Your task to perform on an android device: Open sound settings Image 0: 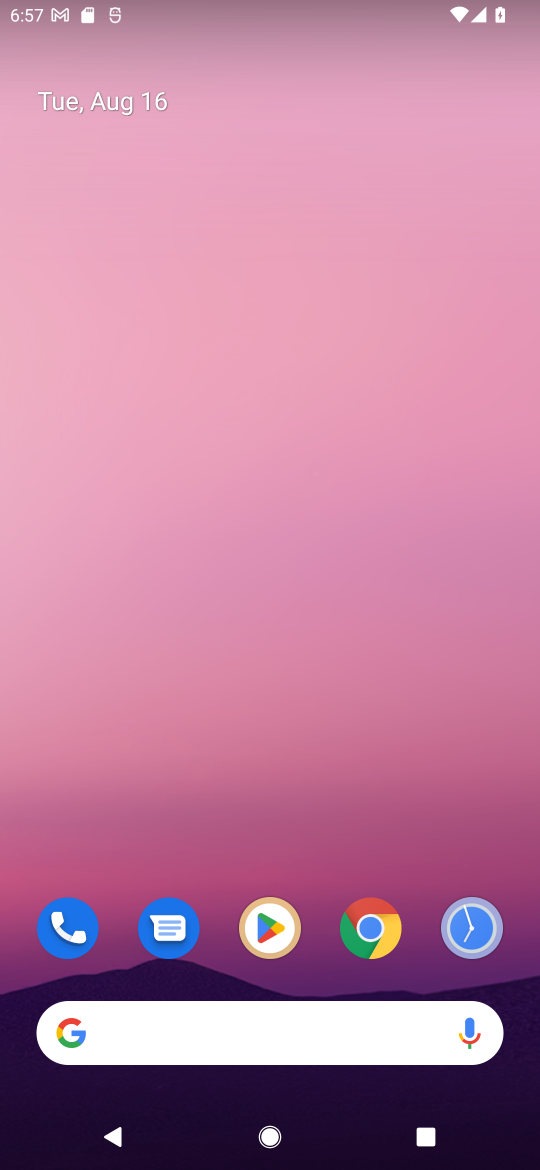
Step 0: drag from (322, 1024) to (322, 213)
Your task to perform on an android device: Open sound settings Image 1: 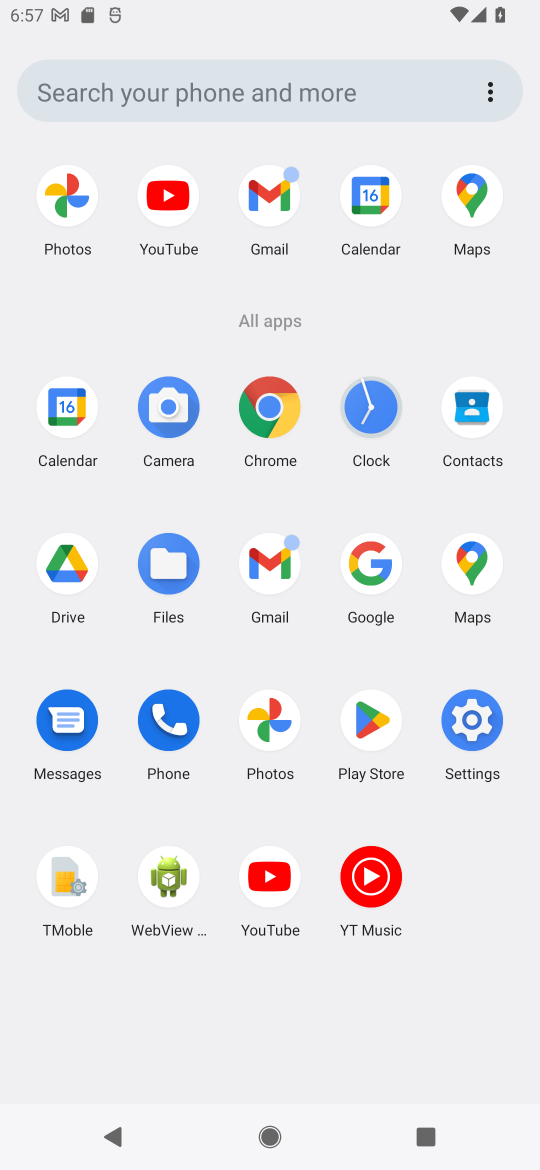
Step 1: click (468, 718)
Your task to perform on an android device: Open sound settings Image 2: 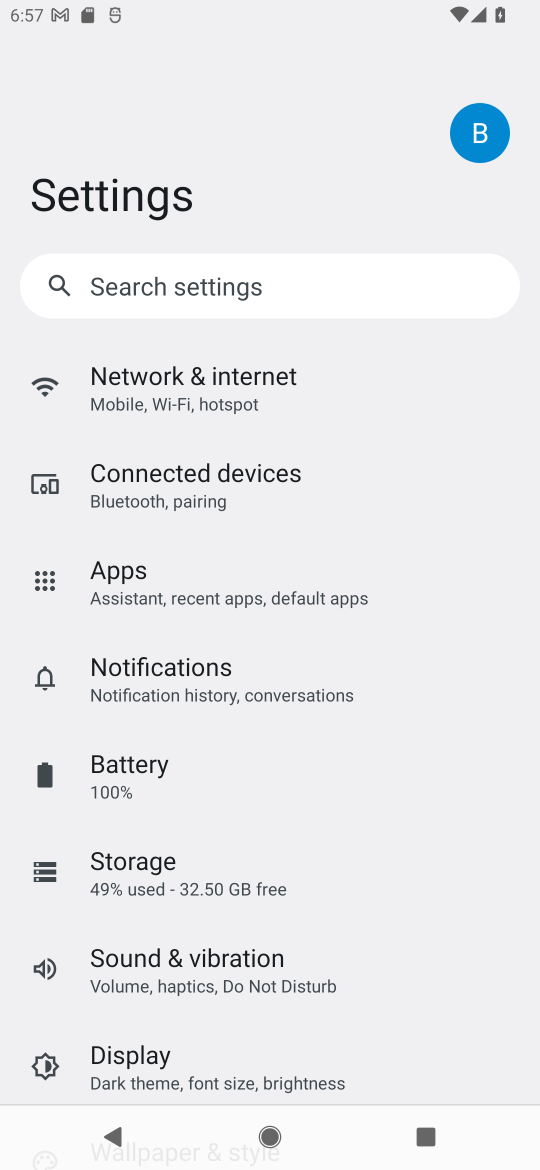
Step 2: drag from (257, 942) to (255, 356)
Your task to perform on an android device: Open sound settings Image 3: 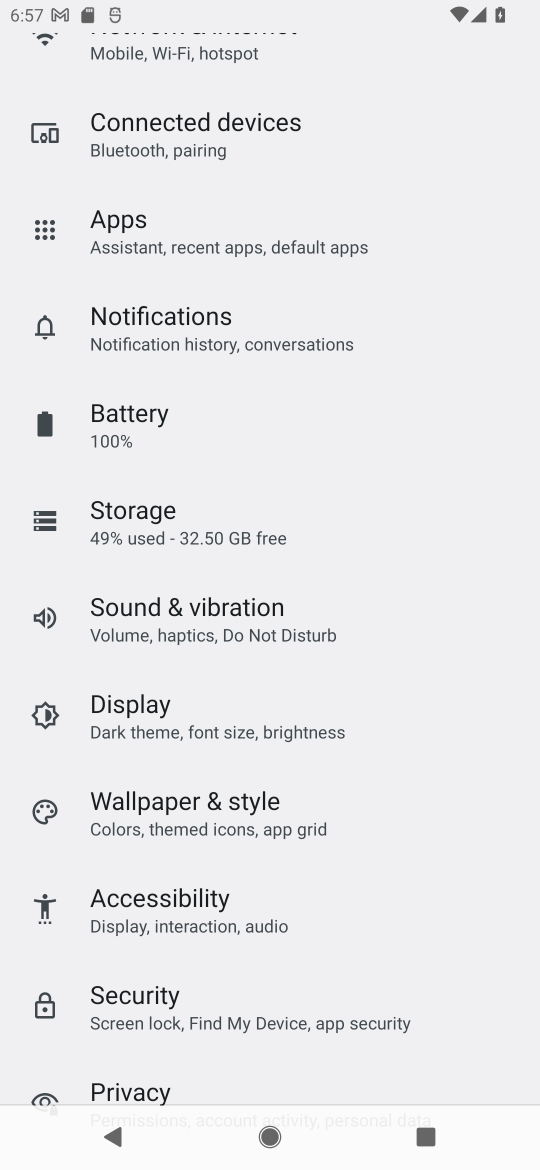
Step 3: drag from (222, 737) to (205, 149)
Your task to perform on an android device: Open sound settings Image 4: 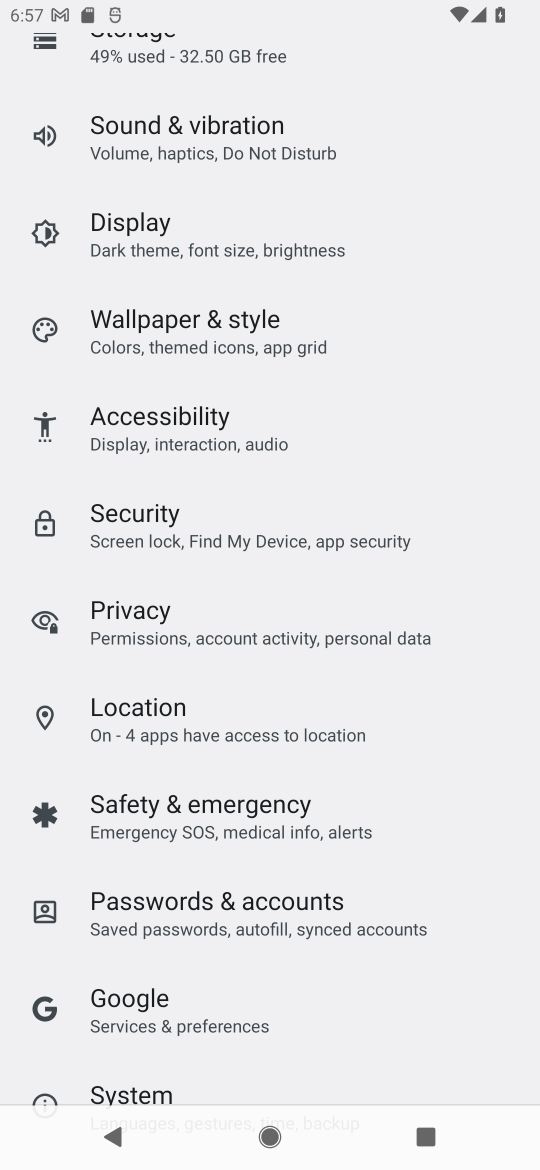
Step 4: click (171, 158)
Your task to perform on an android device: Open sound settings Image 5: 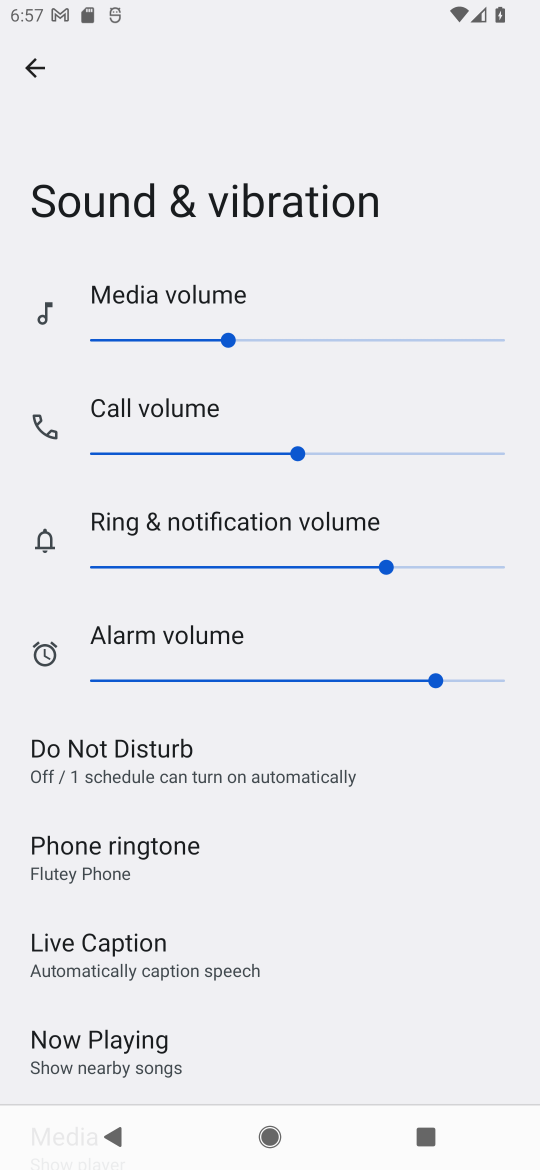
Step 5: task complete